Your task to perform on an android device: turn on airplane mode Image 0: 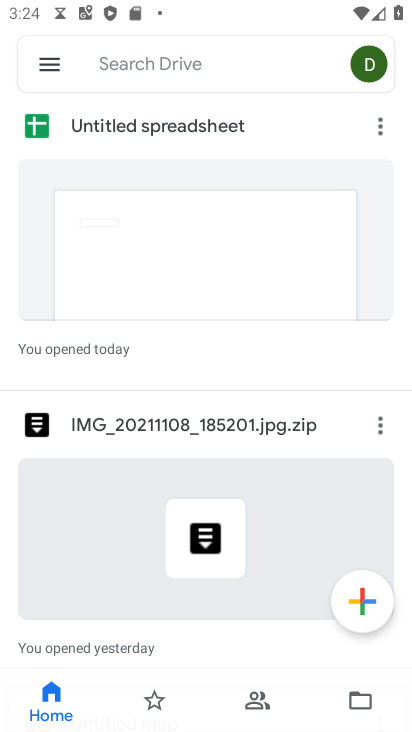
Step 0: press home button
Your task to perform on an android device: turn on airplane mode Image 1: 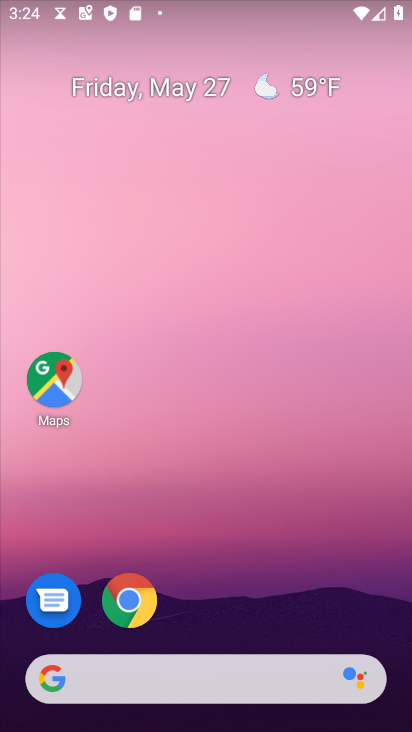
Step 1: drag from (240, 579) to (234, 130)
Your task to perform on an android device: turn on airplane mode Image 2: 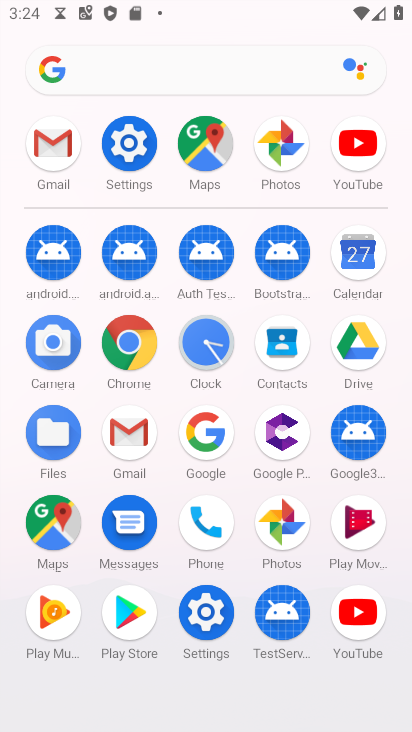
Step 2: click (205, 611)
Your task to perform on an android device: turn on airplane mode Image 3: 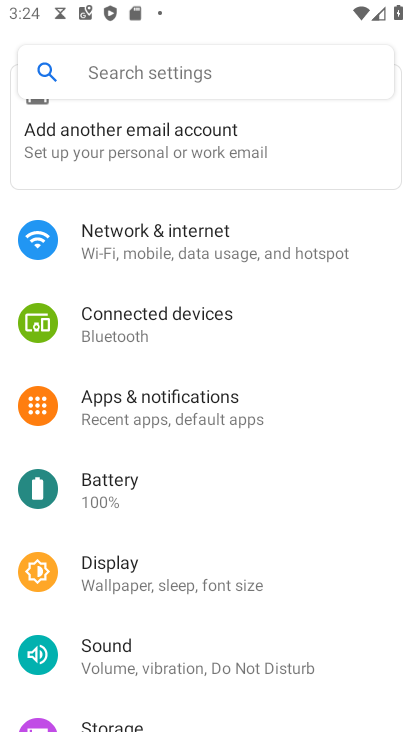
Step 3: click (194, 244)
Your task to perform on an android device: turn on airplane mode Image 4: 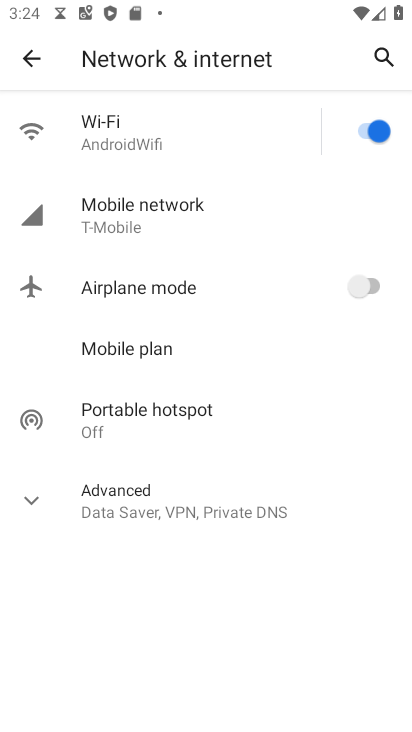
Step 4: click (366, 284)
Your task to perform on an android device: turn on airplane mode Image 5: 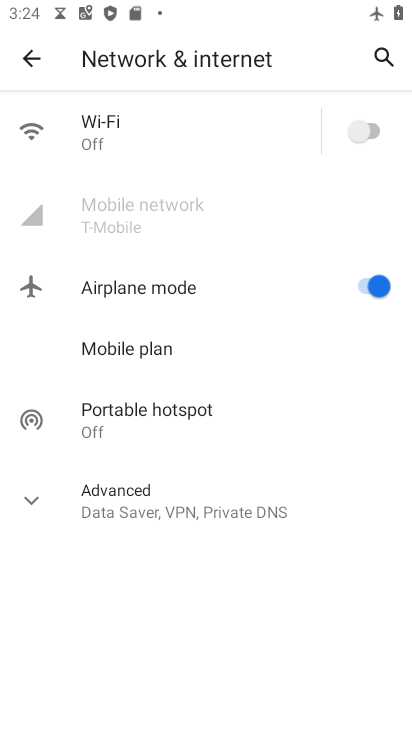
Step 5: task complete